Your task to perform on an android device: open app "Calculator" Image 0: 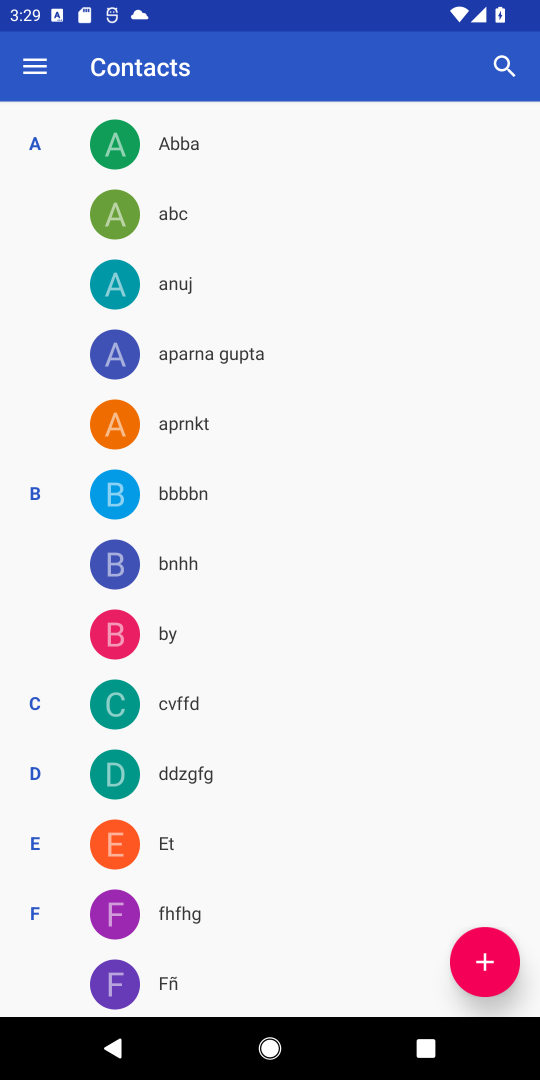
Step 0: press home button
Your task to perform on an android device: open app "Calculator" Image 1: 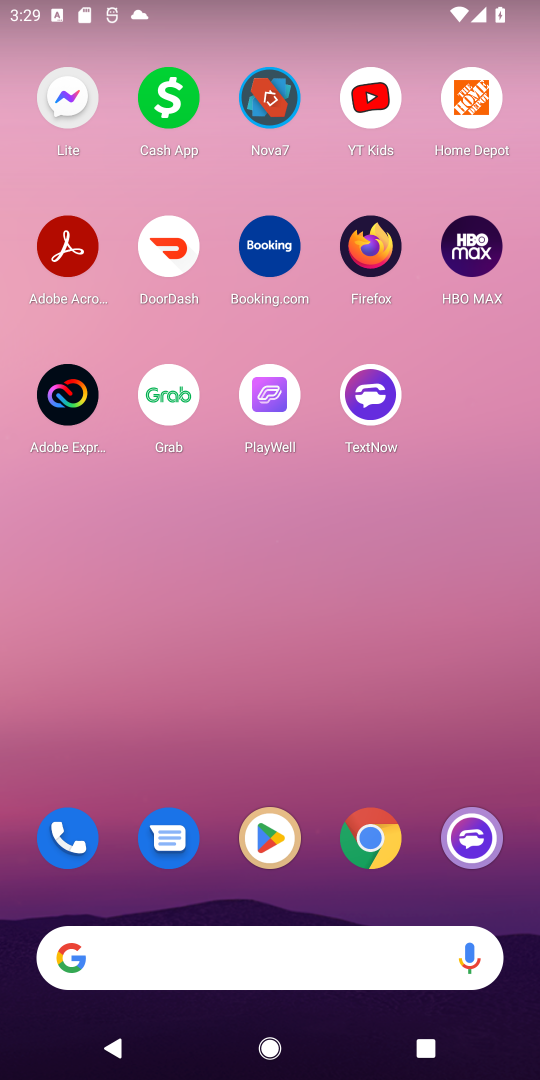
Step 1: drag from (249, 900) to (119, 46)
Your task to perform on an android device: open app "Calculator" Image 2: 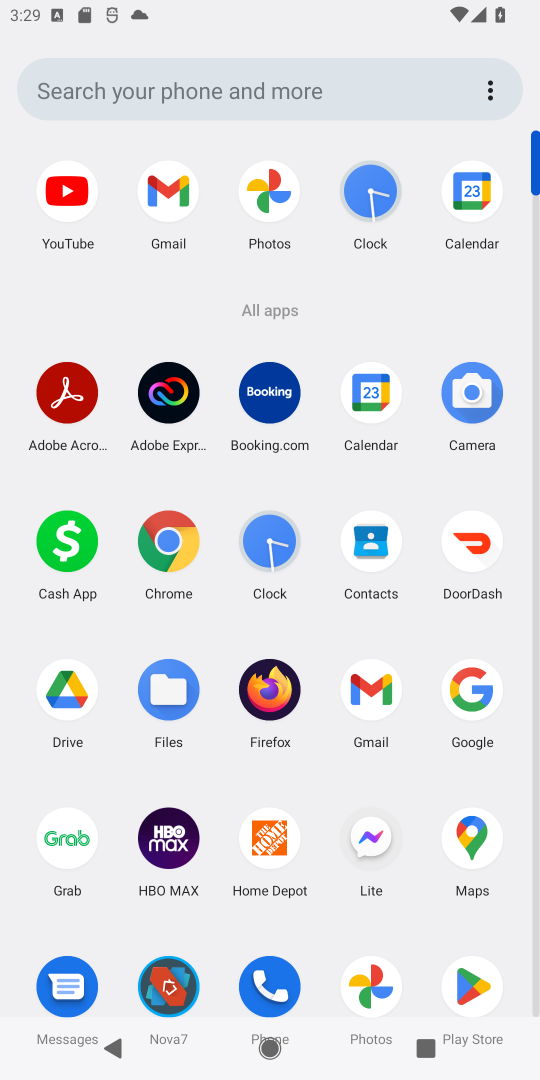
Step 2: click (176, 106)
Your task to perform on an android device: open app "Calculator" Image 3: 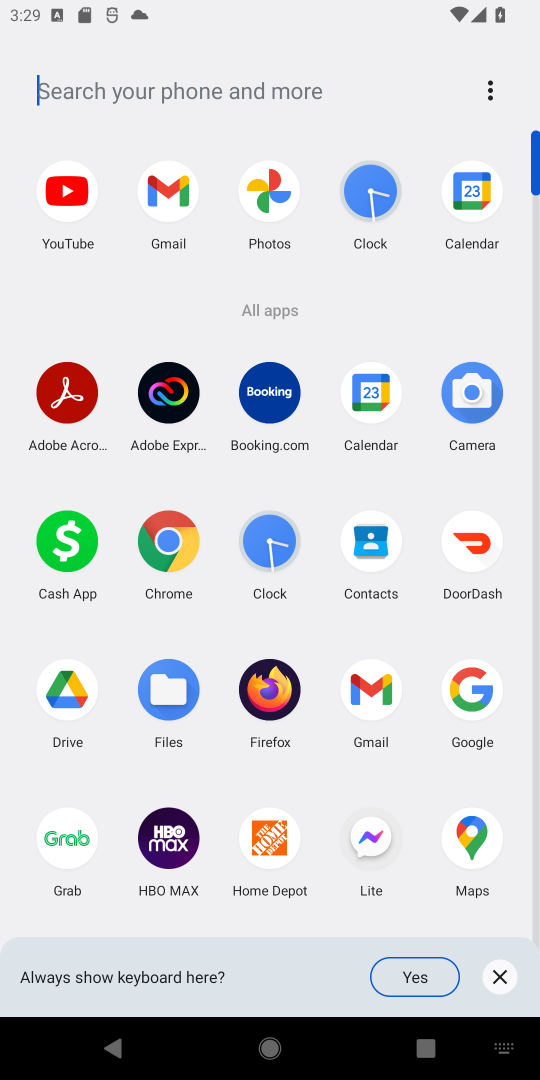
Step 3: type "Calculator"
Your task to perform on an android device: open app "Calculator" Image 4: 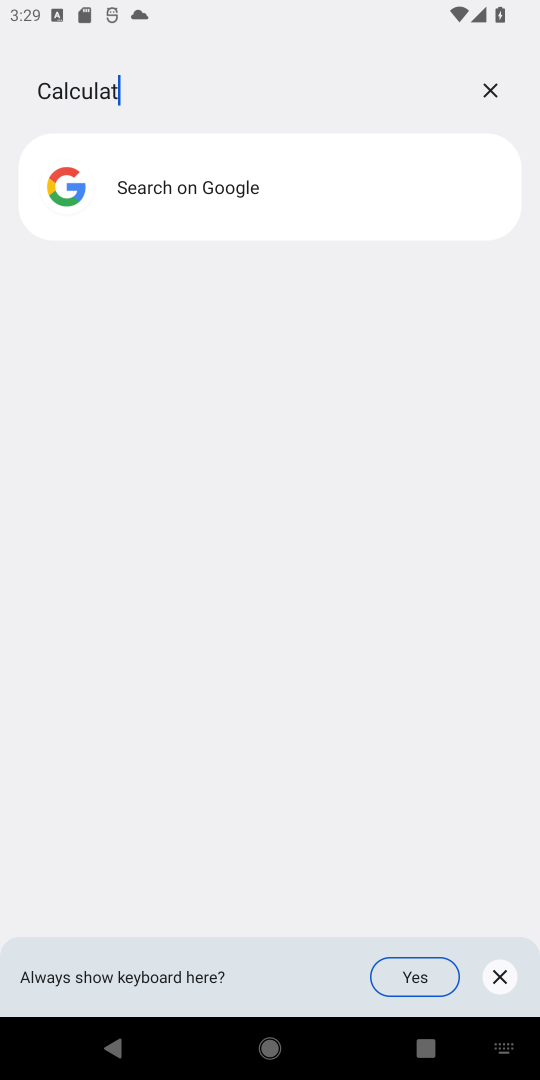
Step 4: type ""
Your task to perform on an android device: open app "Calculator" Image 5: 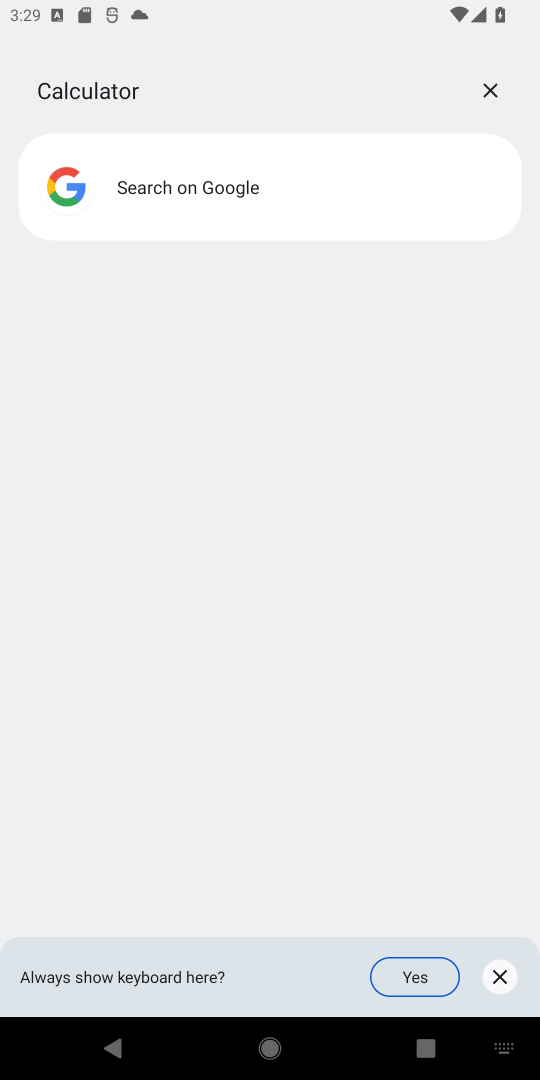
Step 5: task complete